Your task to perform on an android device: turn on data saver in the chrome app Image 0: 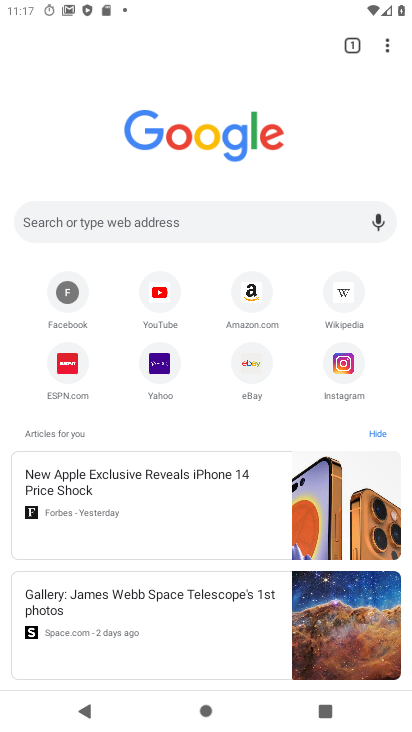
Step 0: drag from (391, 39) to (280, 370)
Your task to perform on an android device: turn on data saver in the chrome app Image 1: 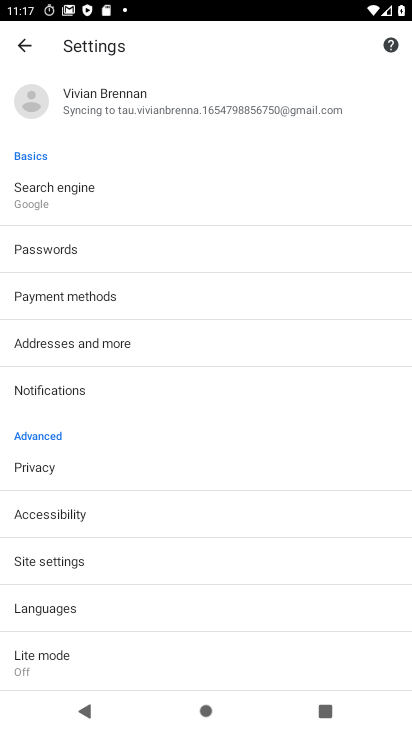
Step 1: drag from (230, 579) to (251, 315)
Your task to perform on an android device: turn on data saver in the chrome app Image 2: 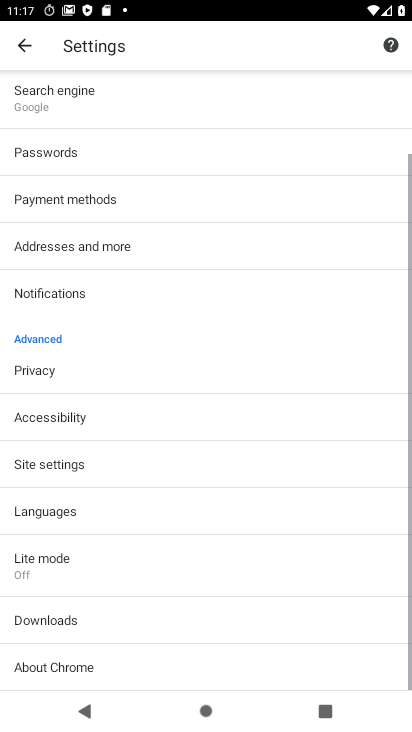
Step 2: click (131, 574)
Your task to perform on an android device: turn on data saver in the chrome app Image 3: 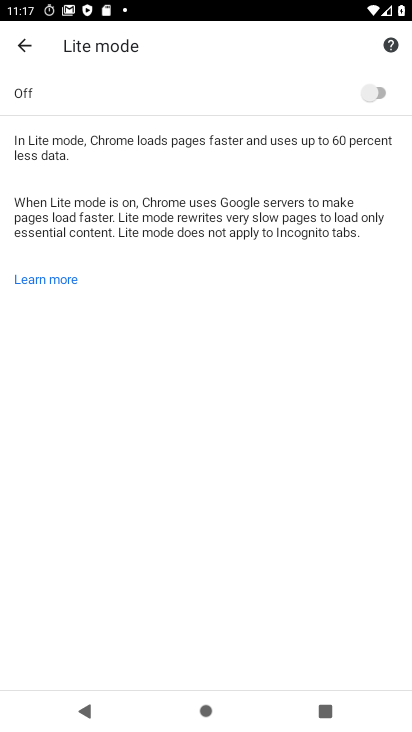
Step 3: click (383, 89)
Your task to perform on an android device: turn on data saver in the chrome app Image 4: 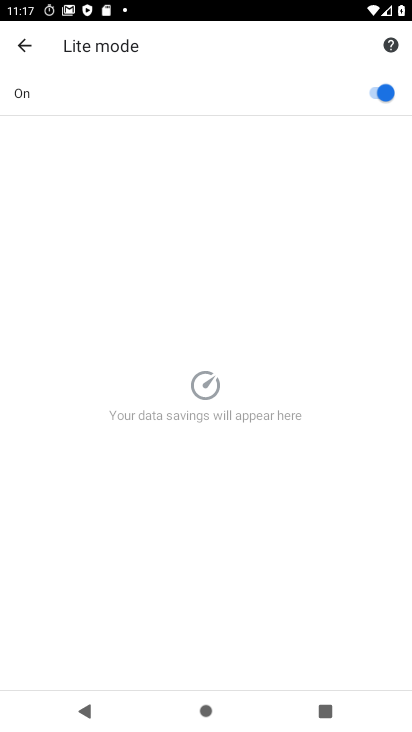
Step 4: task complete